Your task to perform on an android device: install app "The Home Depot" Image 0: 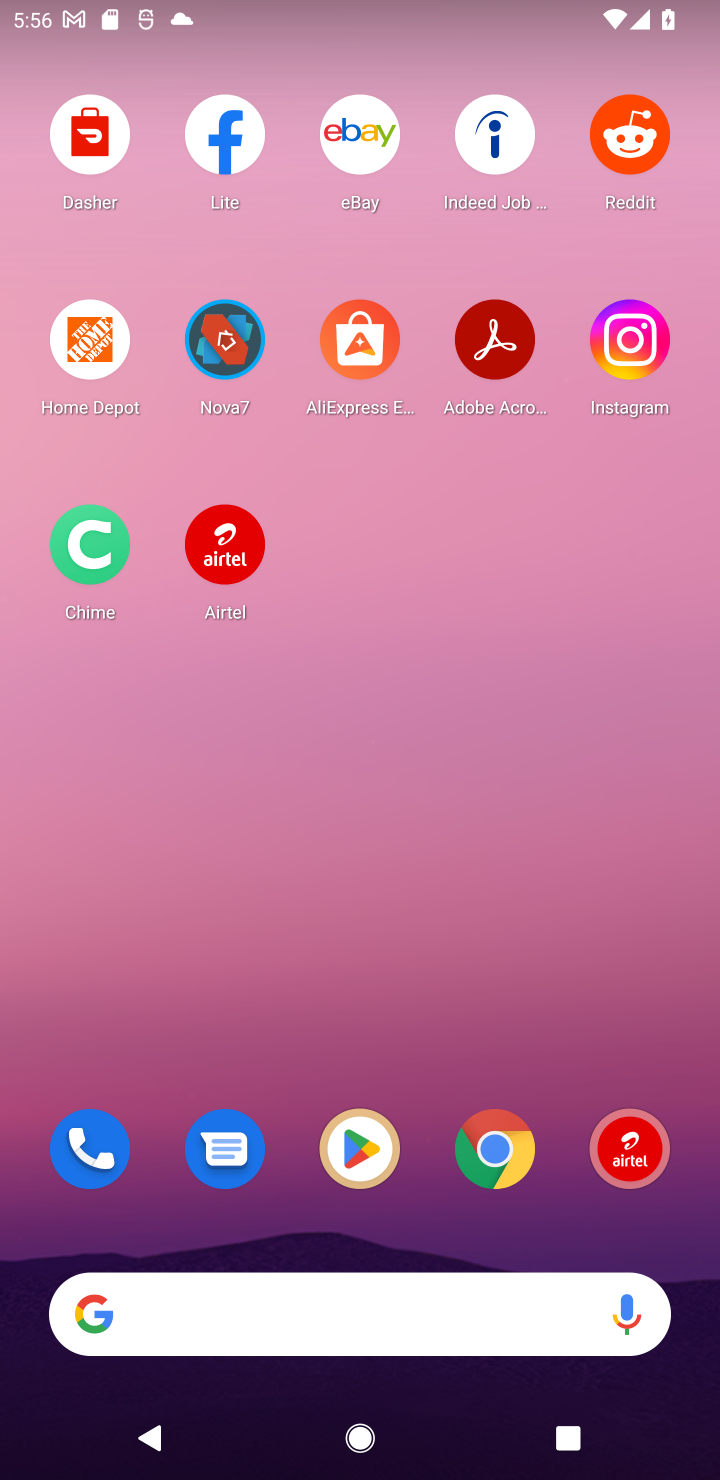
Step 0: press home button
Your task to perform on an android device: install app "The Home Depot" Image 1: 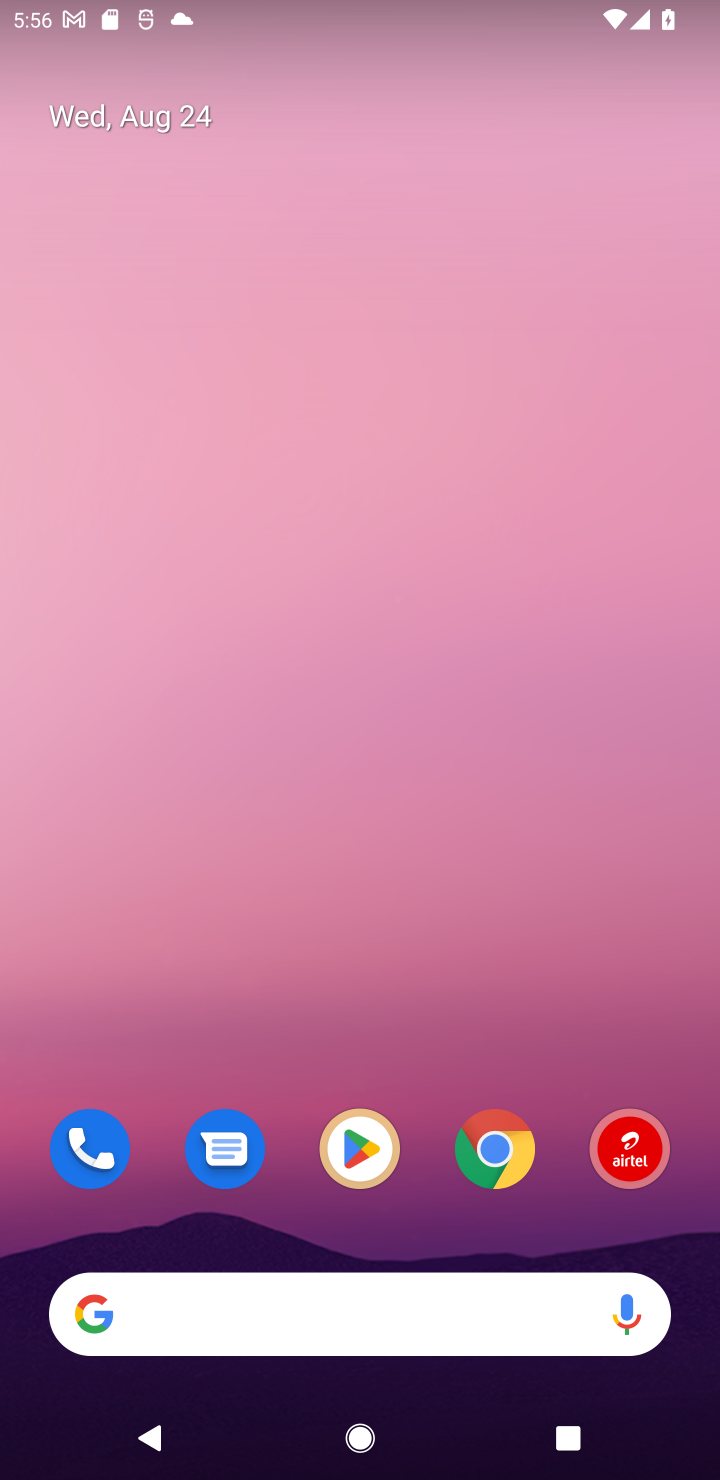
Step 1: click (365, 1165)
Your task to perform on an android device: install app "The Home Depot" Image 2: 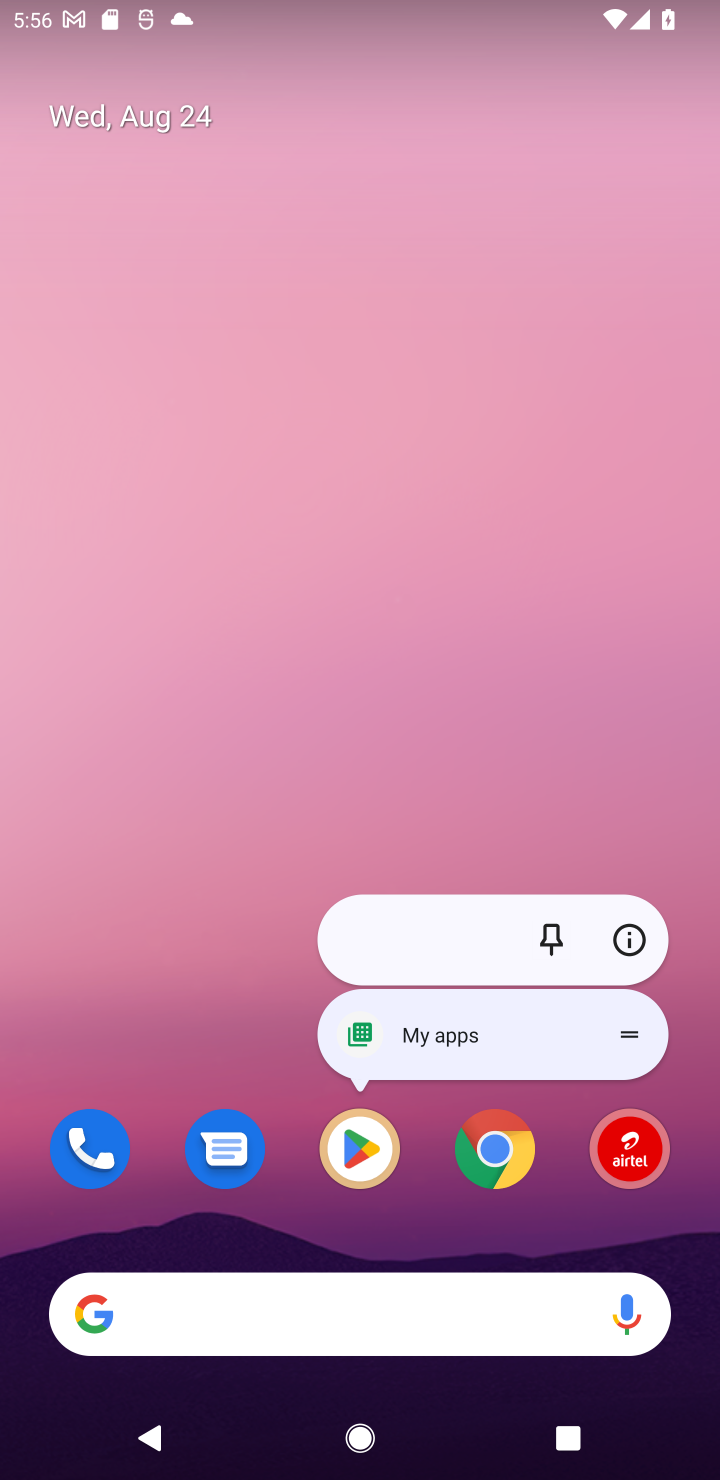
Step 2: click (367, 1172)
Your task to perform on an android device: install app "The Home Depot" Image 3: 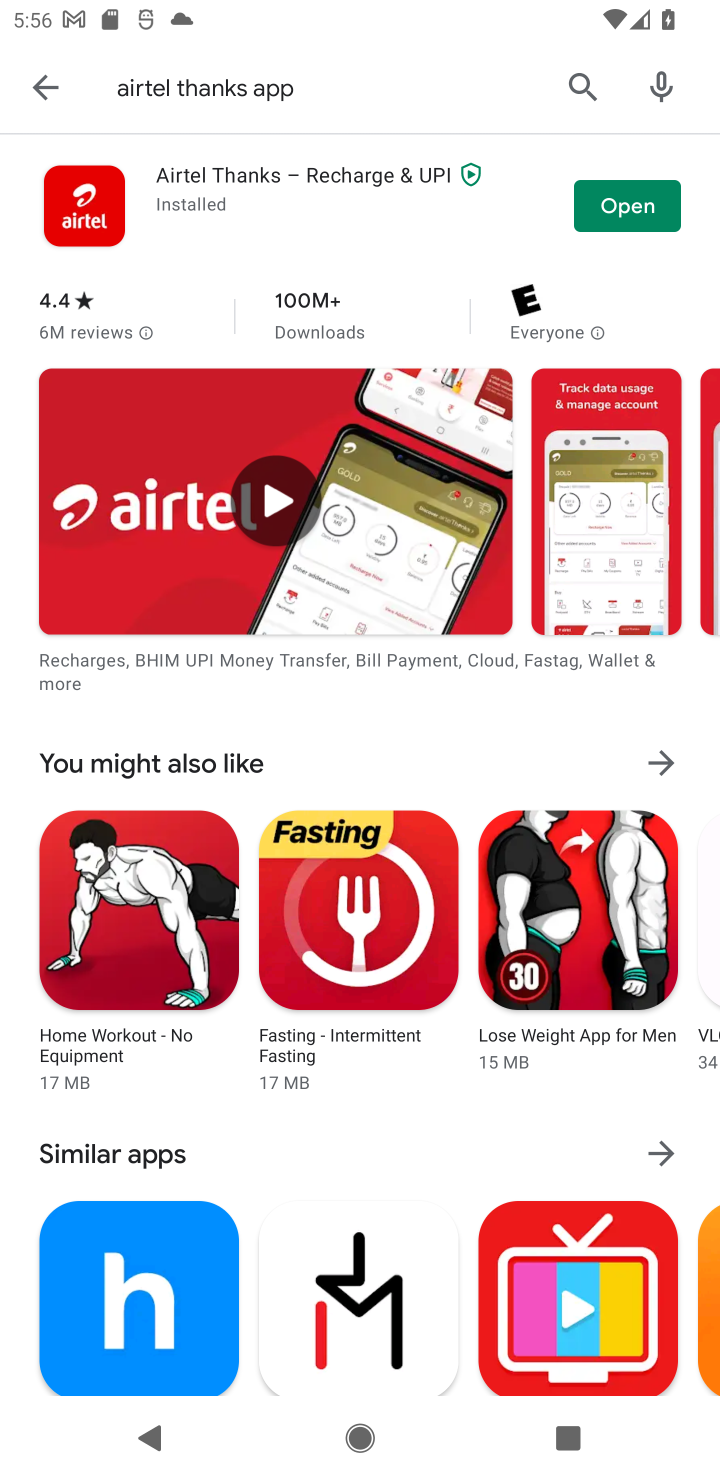
Step 3: click (574, 79)
Your task to perform on an android device: install app "The Home Depot" Image 4: 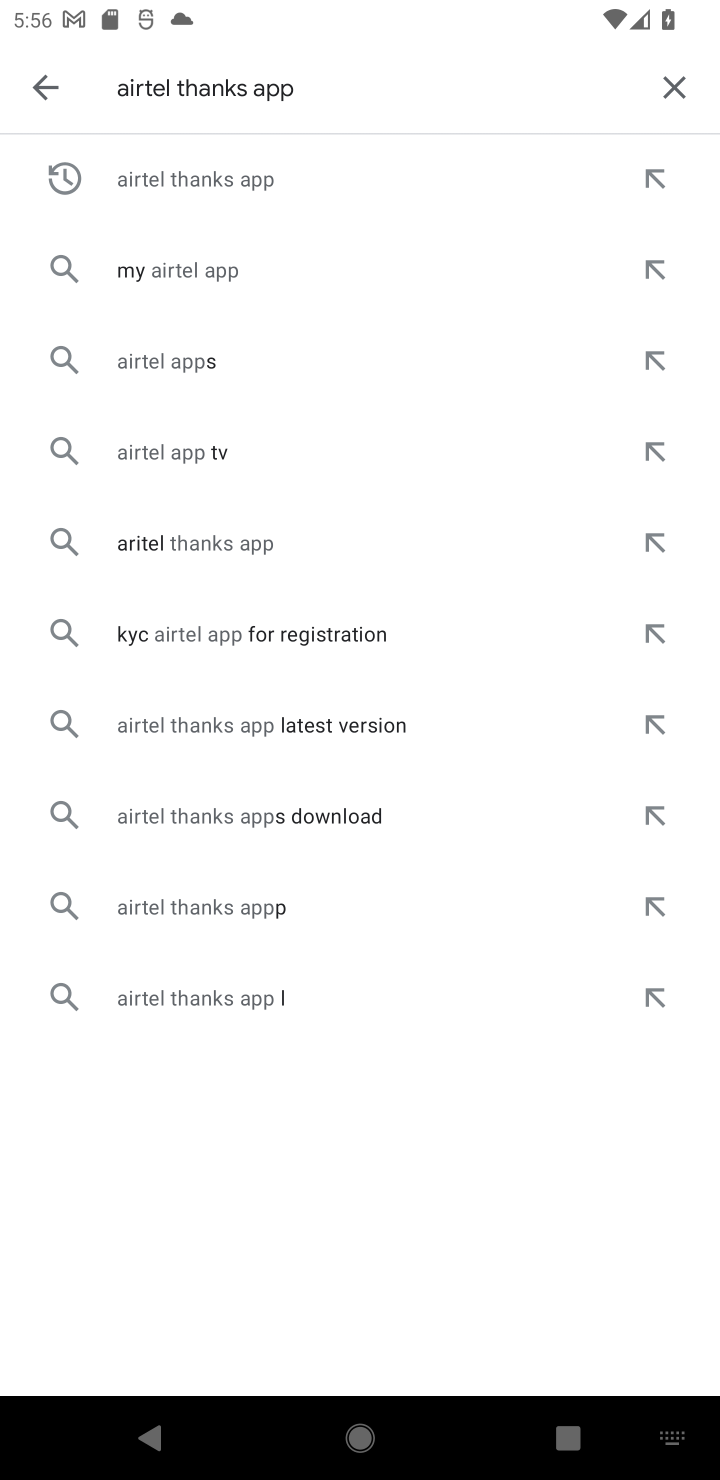
Step 4: click (671, 73)
Your task to perform on an android device: install app "The Home Depot" Image 5: 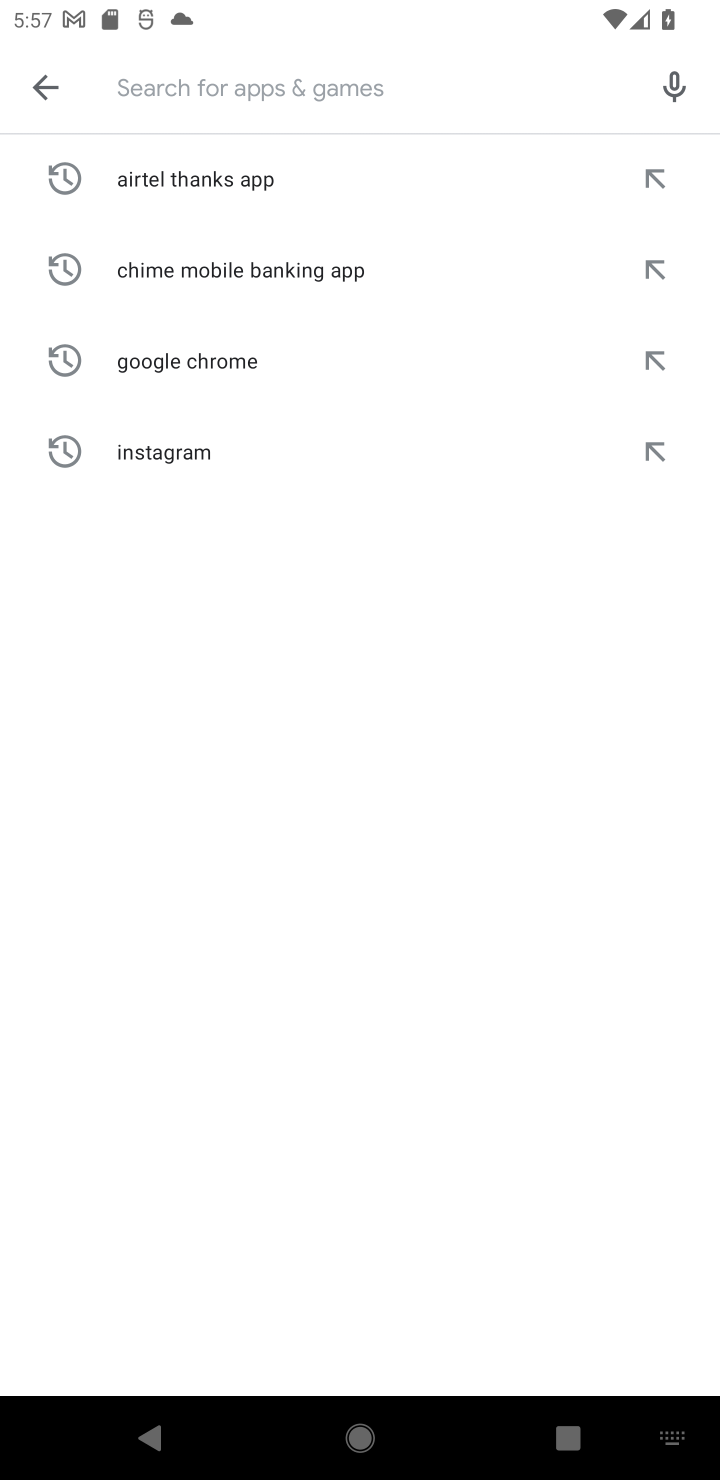
Step 5: type "The Home Depot"
Your task to perform on an android device: install app "The Home Depot" Image 6: 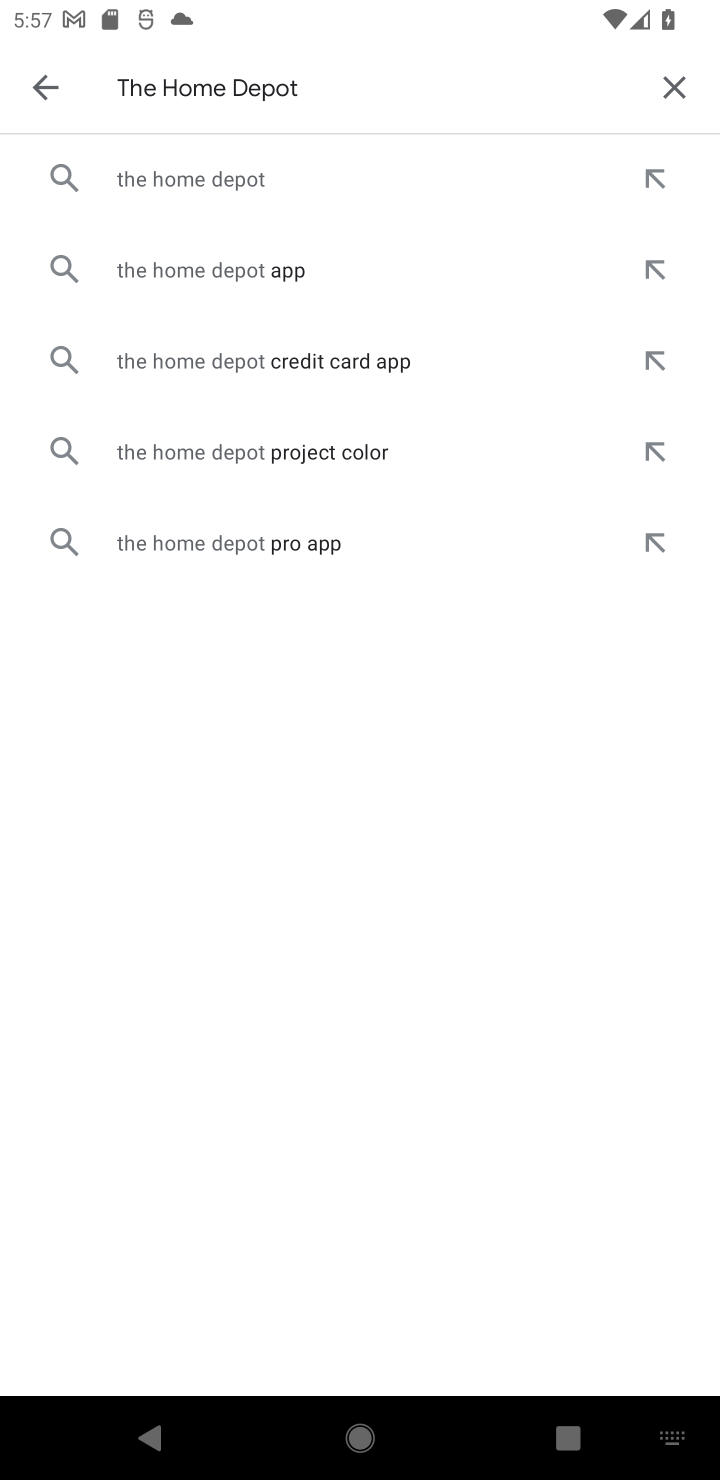
Step 6: click (244, 183)
Your task to perform on an android device: install app "The Home Depot" Image 7: 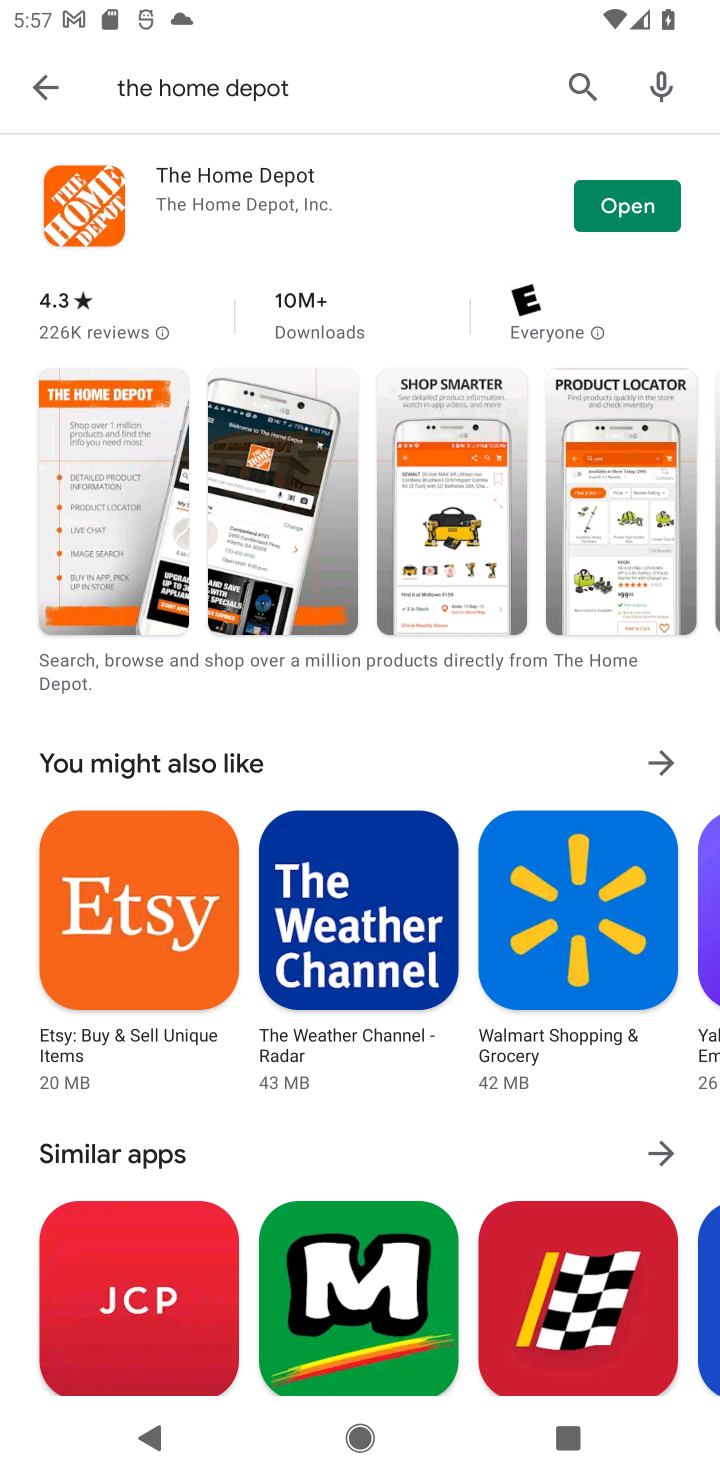
Step 7: task complete